Your task to perform on an android device: See recent photos Image 0: 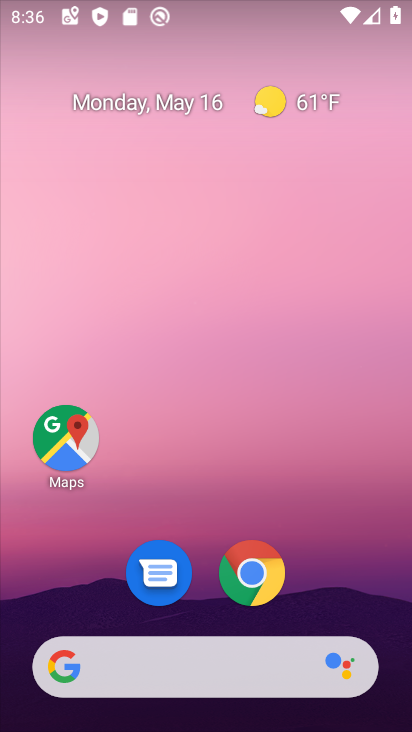
Step 0: drag from (200, 723) to (206, 145)
Your task to perform on an android device: See recent photos Image 1: 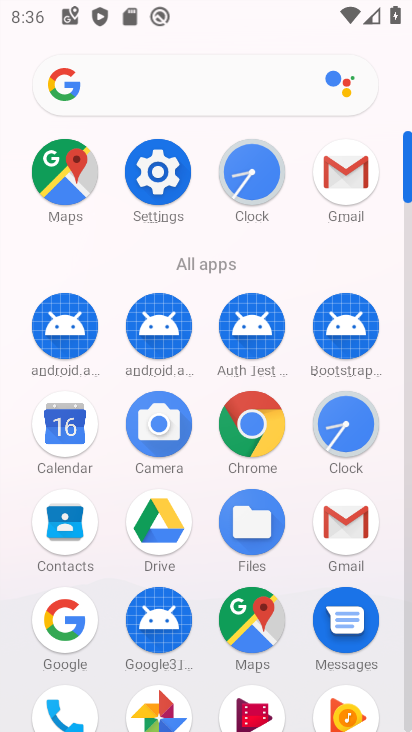
Step 1: click (164, 705)
Your task to perform on an android device: See recent photos Image 2: 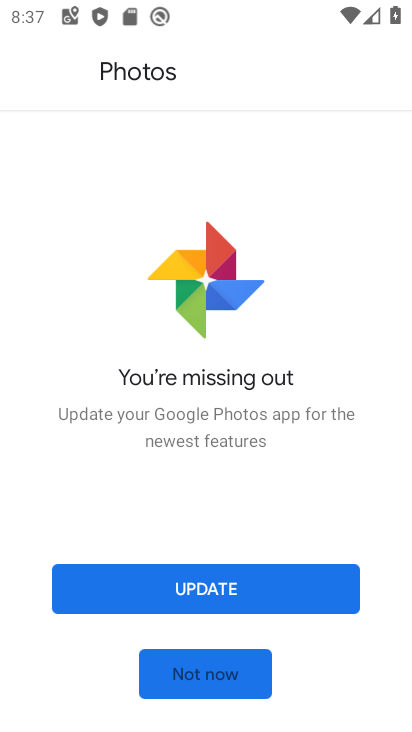
Step 2: click (207, 589)
Your task to perform on an android device: See recent photos Image 3: 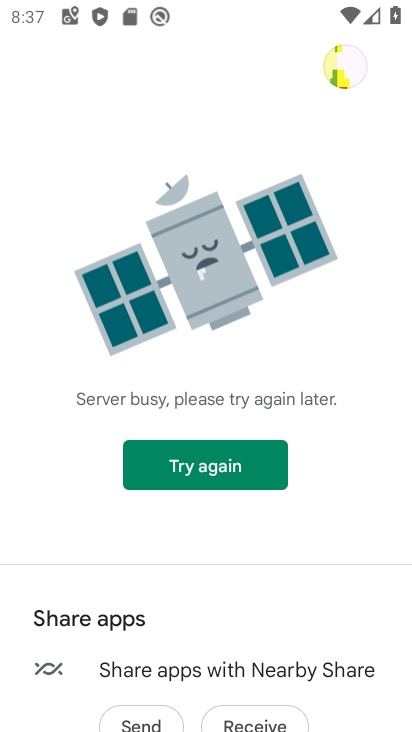
Step 3: task complete